Your task to perform on an android device: turn off picture-in-picture Image 0: 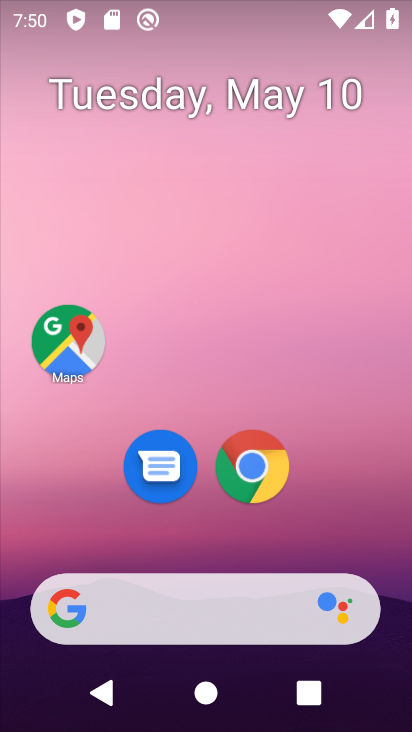
Step 0: click (266, 454)
Your task to perform on an android device: turn off picture-in-picture Image 1: 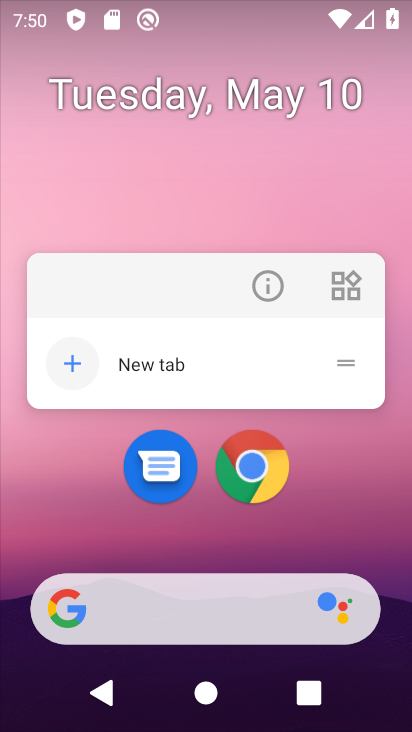
Step 1: click (269, 295)
Your task to perform on an android device: turn off picture-in-picture Image 2: 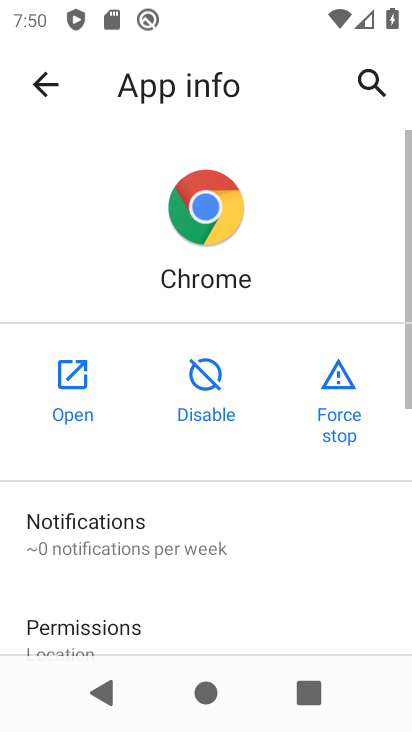
Step 2: drag from (315, 582) to (315, 217)
Your task to perform on an android device: turn off picture-in-picture Image 3: 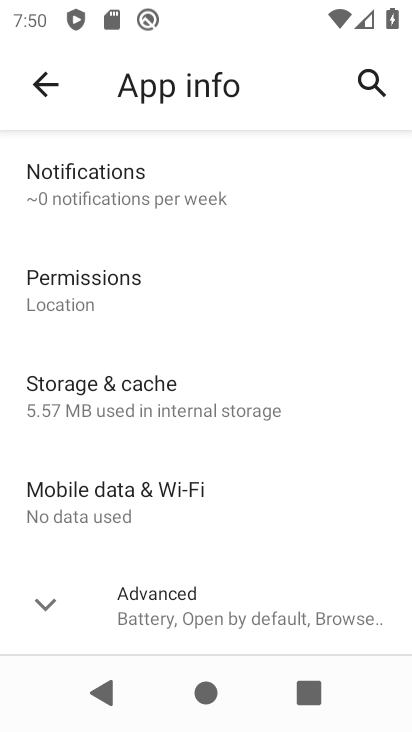
Step 3: click (201, 607)
Your task to perform on an android device: turn off picture-in-picture Image 4: 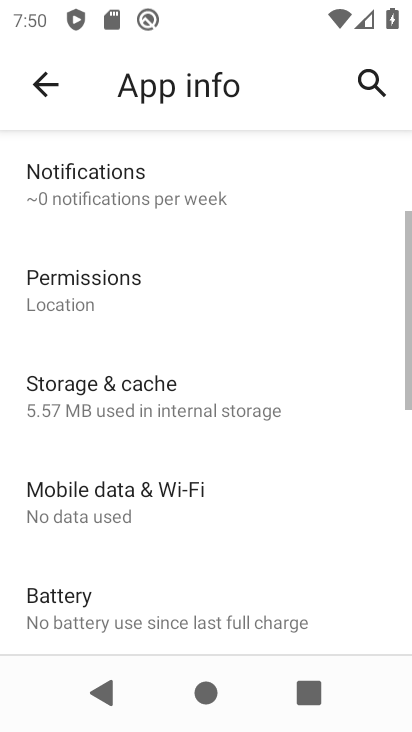
Step 4: drag from (201, 607) to (221, 270)
Your task to perform on an android device: turn off picture-in-picture Image 5: 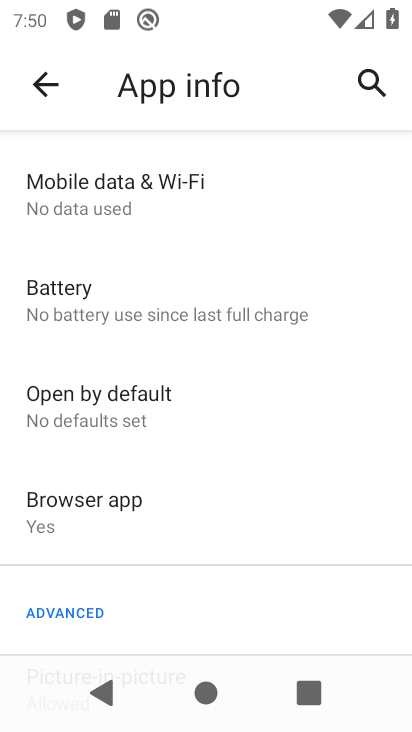
Step 5: drag from (62, 530) to (110, 301)
Your task to perform on an android device: turn off picture-in-picture Image 6: 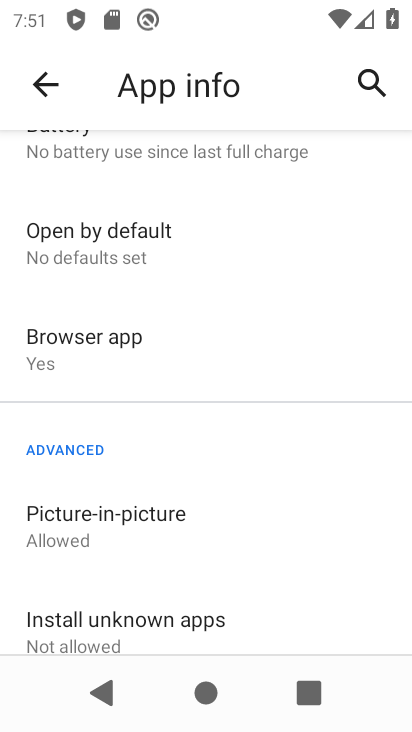
Step 6: click (84, 542)
Your task to perform on an android device: turn off picture-in-picture Image 7: 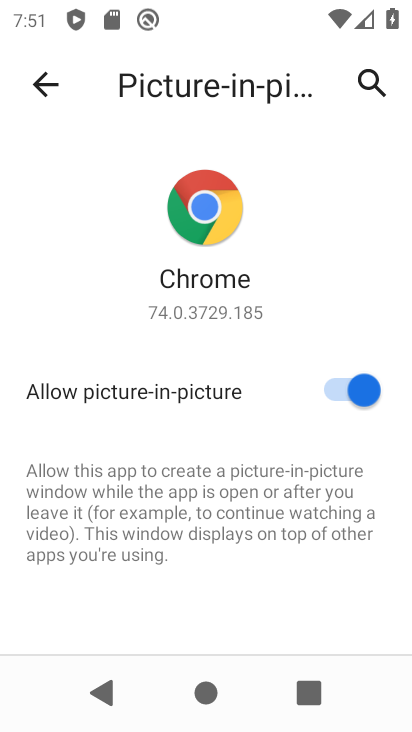
Step 7: click (334, 383)
Your task to perform on an android device: turn off picture-in-picture Image 8: 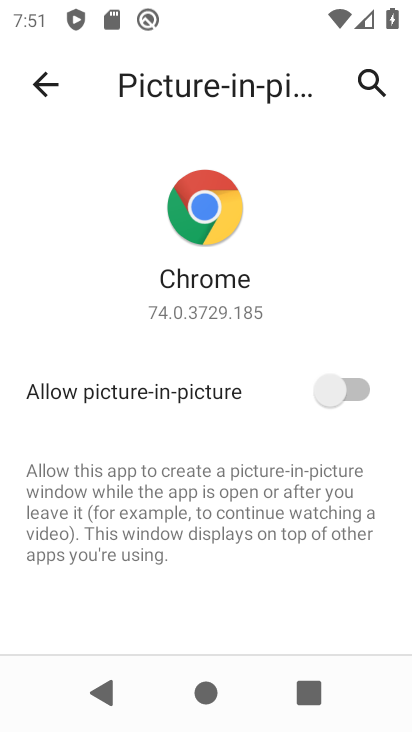
Step 8: task complete